Your task to perform on an android device: Do I have any events today? Image 0: 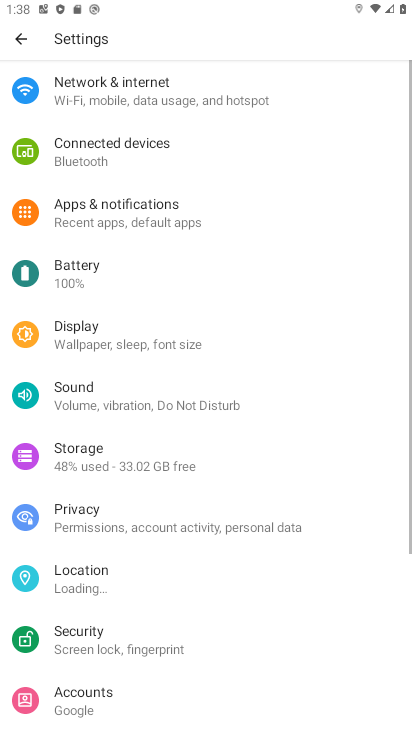
Step 0: press home button
Your task to perform on an android device: Do I have any events today? Image 1: 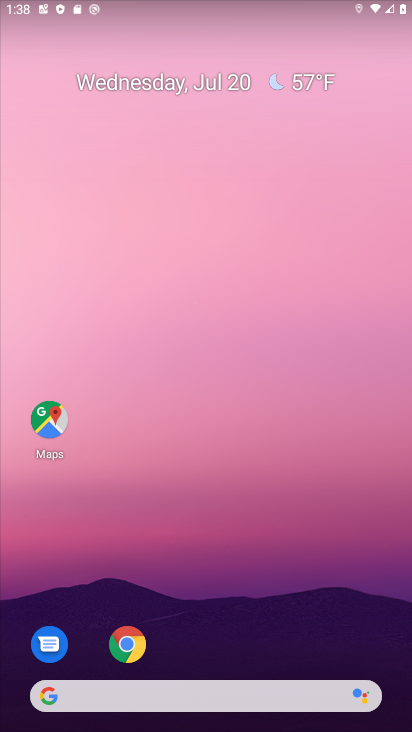
Step 1: drag from (194, 645) to (220, 2)
Your task to perform on an android device: Do I have any events today? Image 2: 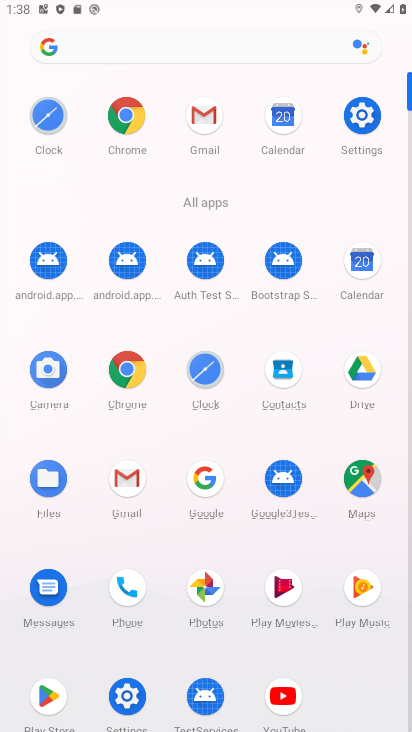
Step 2: click (358, 279)
Your task to perform on an android device: Do I have any events today? Image 3: 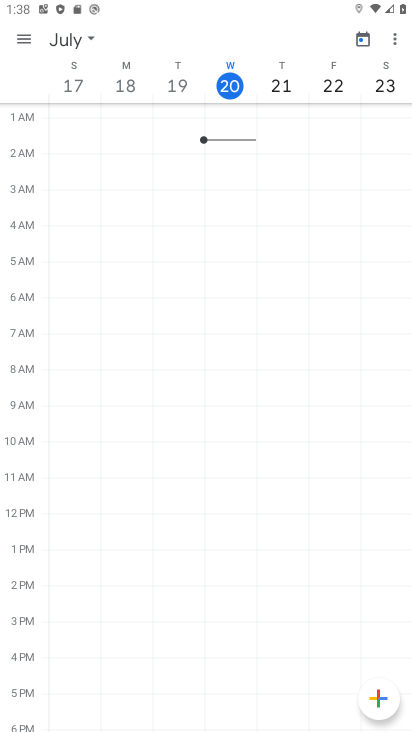
Step 3: click (88, 32)
Your task to perform on an android device: Do I have any events today? Image 4: 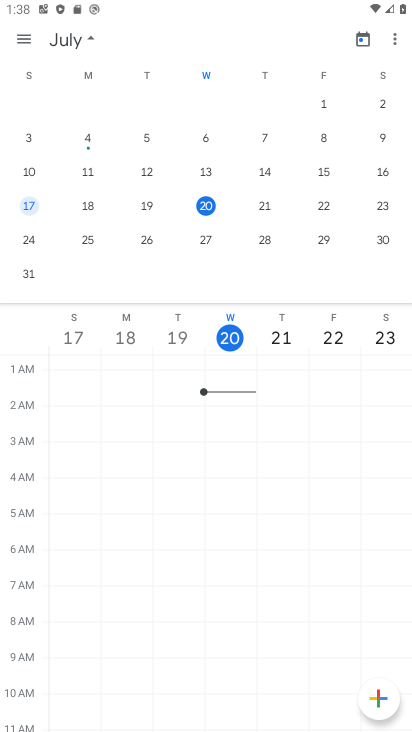
Step 4: click (206, 209)
Your task to perform on an android device: Do I have any events today? Image 5: 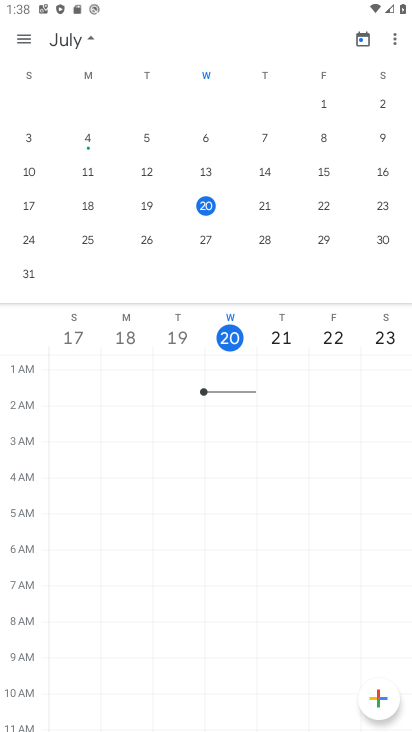
Step 5: click (232, 338)
Your task to perform on an android device: Do I have any events today? Image 6: 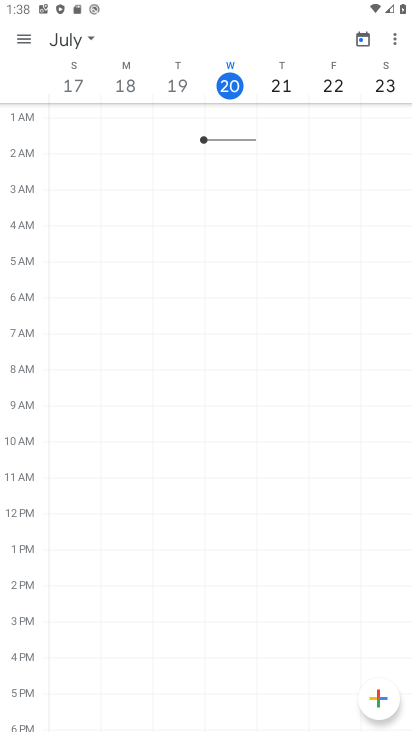
Step 6: task complete